Your task to perform on an android device: Open settings Image 0: 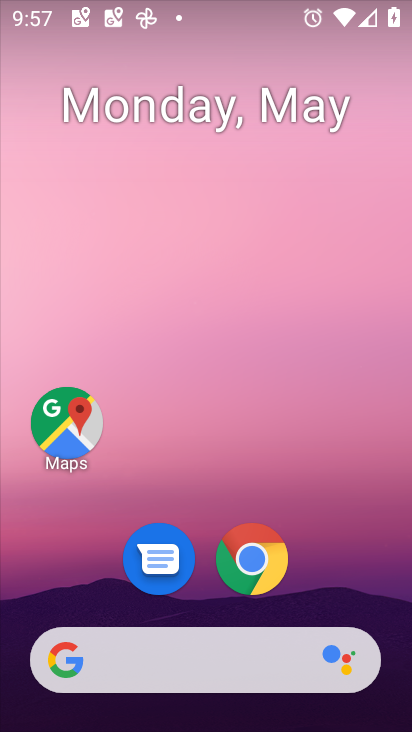
Step 0: drag from (389, 640) to (265, 117)
Your task to perform on an android device: Open settings Image 1: 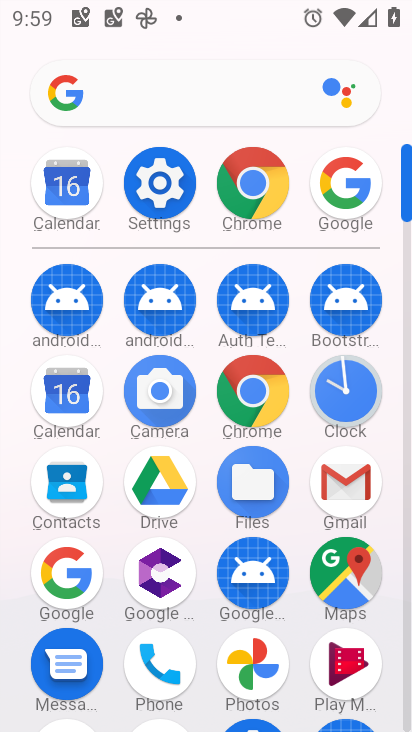
Step 1: click (156, 201)
Your task to perform on an android device: Open settings Image 2: 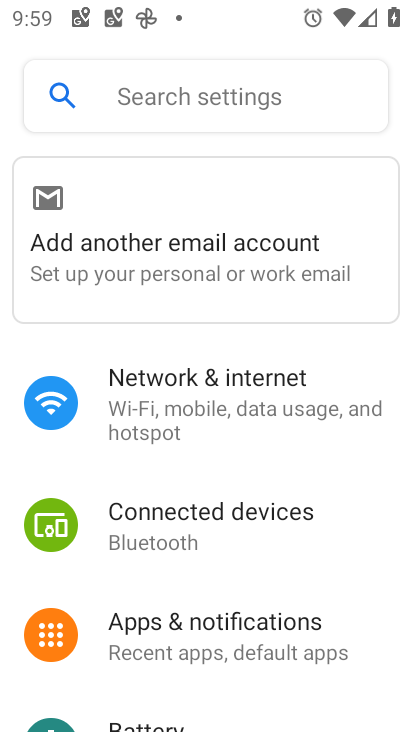
Step 2: task complete